Your task to perform on an android device: open a new tab in the chrome app Image 0: 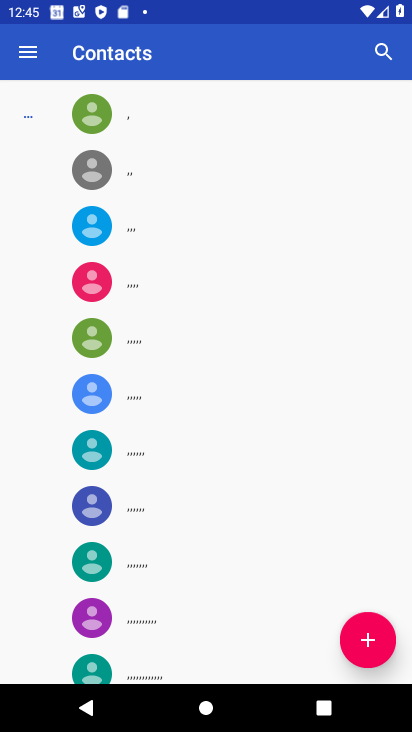
Step 0: press home button
Your task to perform on an android device: open a new tab in the chrome app Image 1: 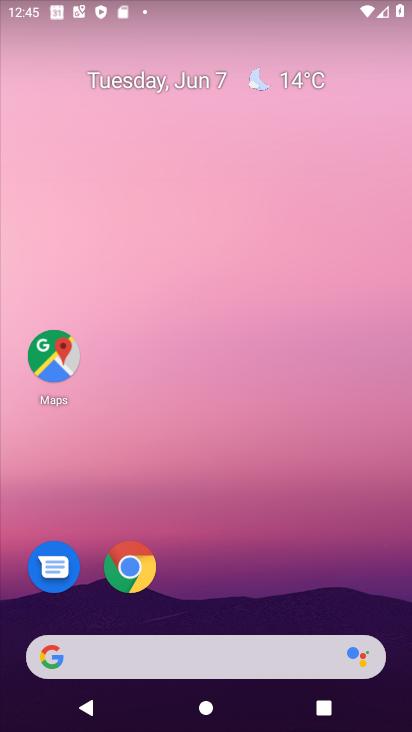
Step 1: click (120, 570)
Your task to perform on an android device: open a new tab in the chrome app Image 2: 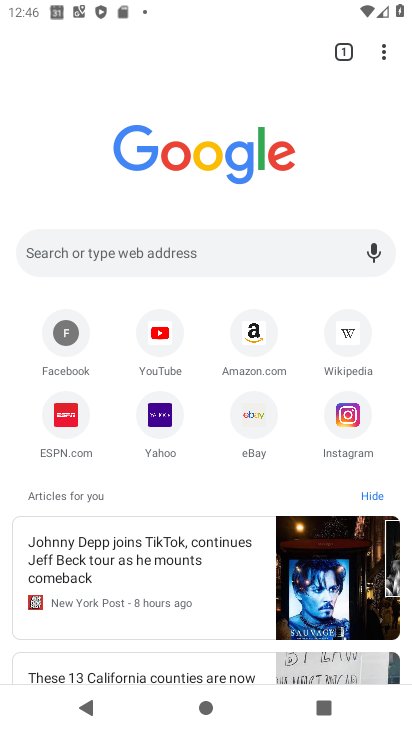
Step 2: click (388, 63)
Your task to perform on an android device: open a new tab in the chrome app Image 3: 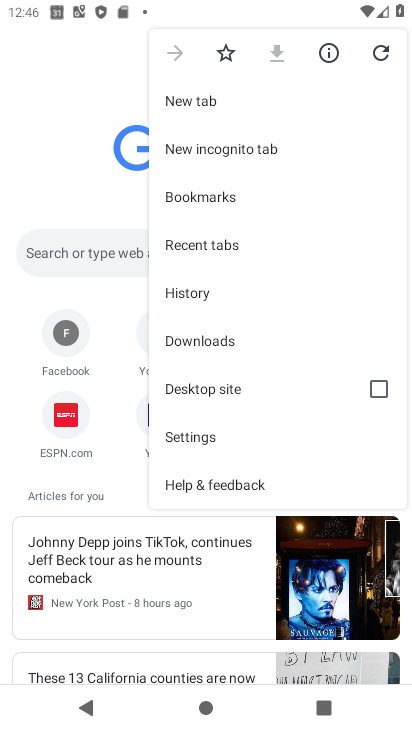
Step 3: click (210, 110)
Your task to perform on an android device: open a new tab in the chrome app Image 4: 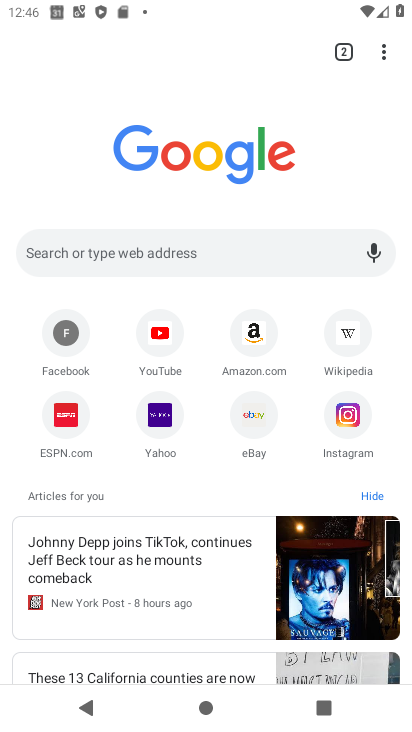
Step 4: task complete